Your task to perform on an android device: Open the calendar app, open the side menu, and click the "Day" option Image 0: 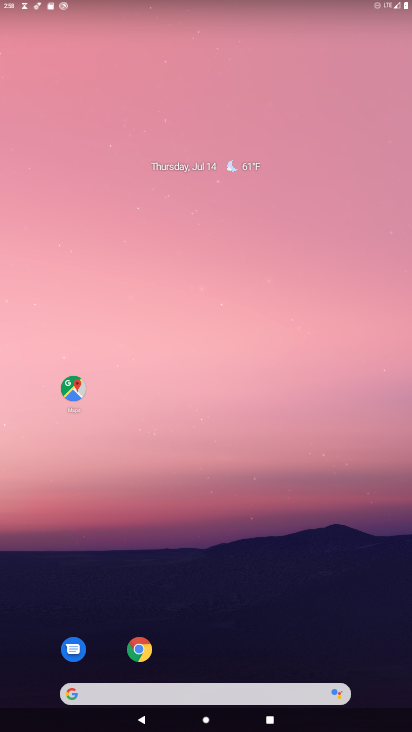
Step 0: drag from (308, 677) to (277, 29)
Your task to perform on an android device: Open the calendar app, open the side menu, and click the "Day" option Image 1: 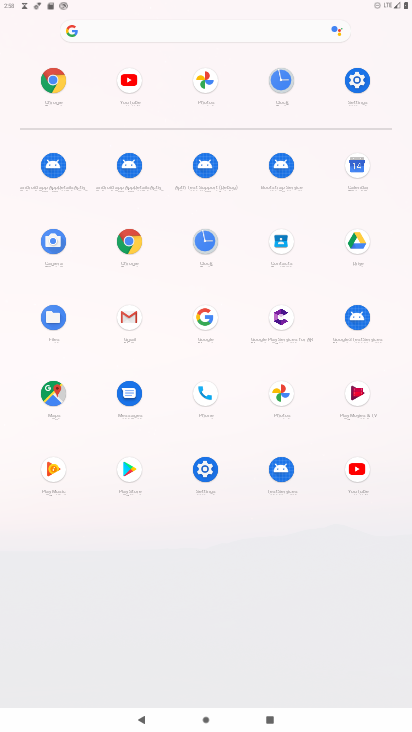
Step 1: click (357, 168)
Your task to perform on an android device: Open the calendar app, open the side menu, and click the "Day" option Image 2: 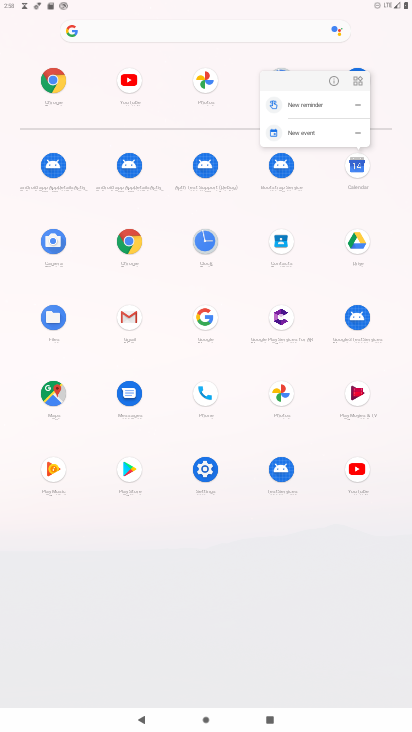
Step 2: click (357, 173)
Your task to perform on an android device: Open the calendar app, open the side menu, and click the "Day" option Image 3: 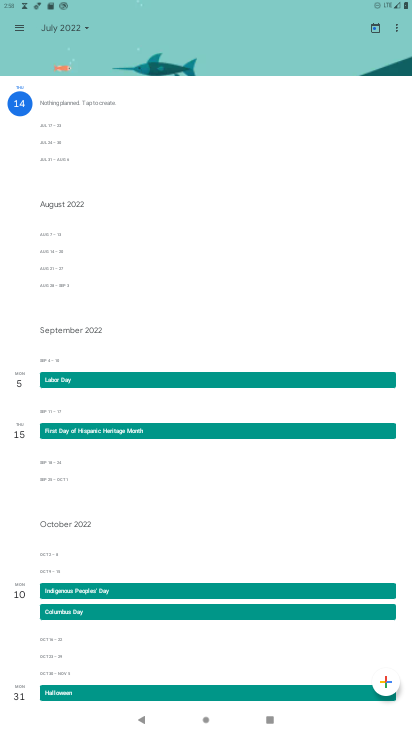
Step 3: click (16, 30)
Your task to perform on an android device: Open the calendar app, open the side menu, and click the "Day" option Image 4: 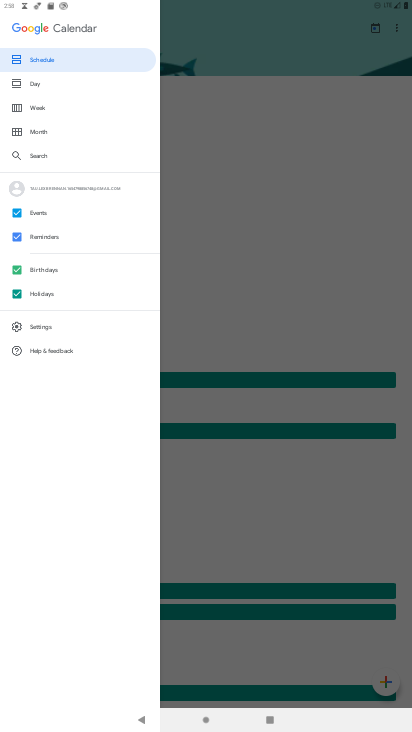
Step 4: click (47, 84)
Your task to perform on an android device: Open the calendar app, open the side menu, and click the "Day" option Image 5: 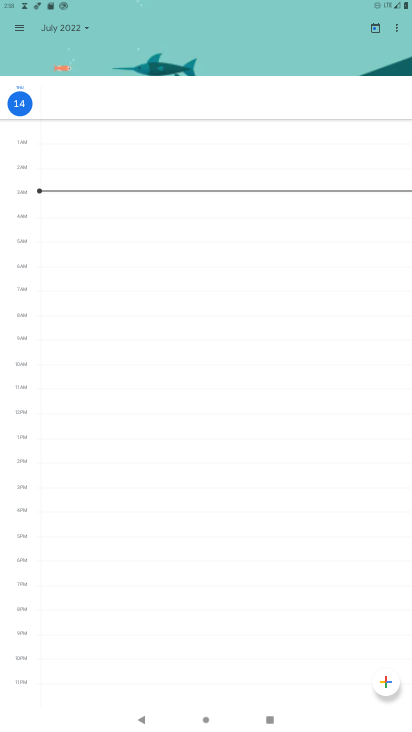
Step 5: task complete